Your task to perform on an android device: Show me recent news Image 0: 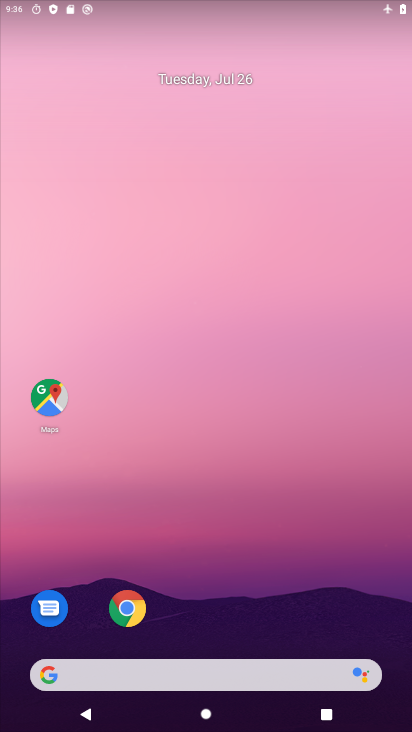
Step 0: drag from (205, 620) to (211, 90)
Your task to perform on an android device: Show me recent news Image 1: 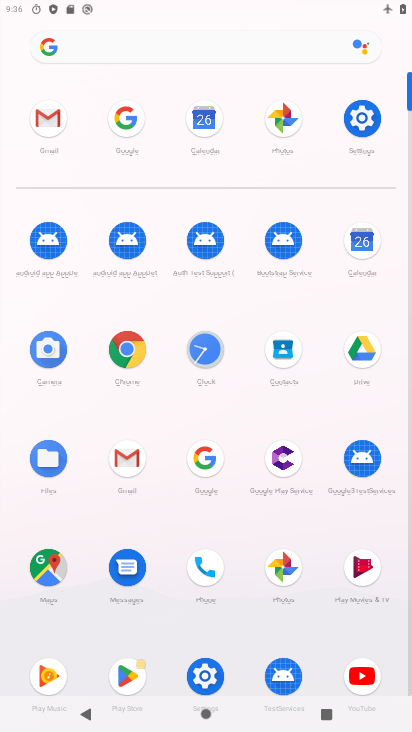
Step 1: click (205, 450)
Your task to perform on an android device: Show me recent news Image 2: 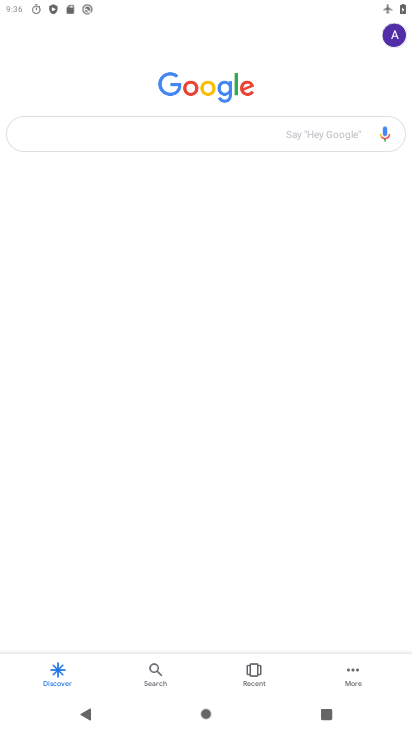
Step 2: click (180, 135)
Your task to perform on an android device: Show me recent news Image 3: 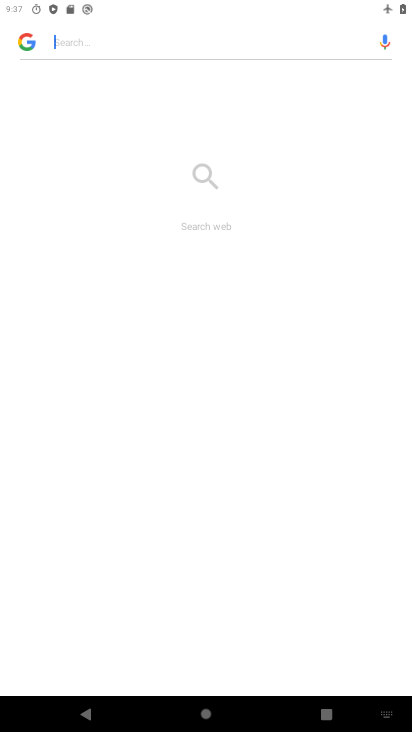
Step 3: click (153, 46)
Your task to perform on an android device: Show me recent news Image 4: 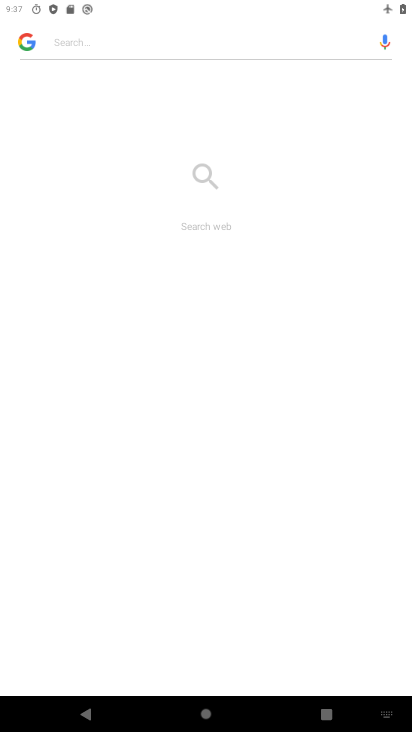
Step 4: type "news"
Your task to perform on an android device: Show me recent news Image 5: 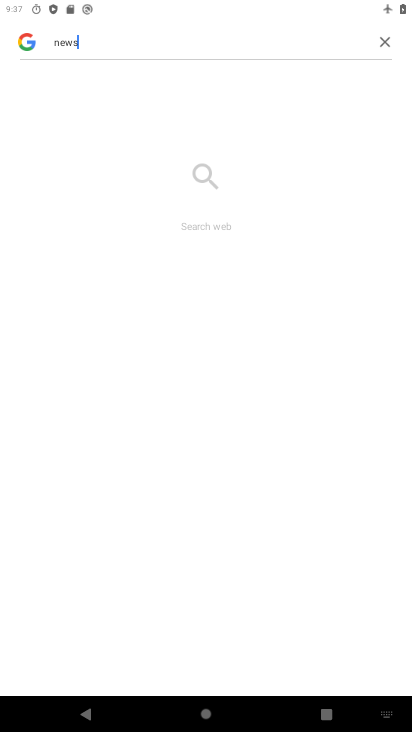
Step 5: type ""
Your task to perform on an android device: Show me recent news Image 6: 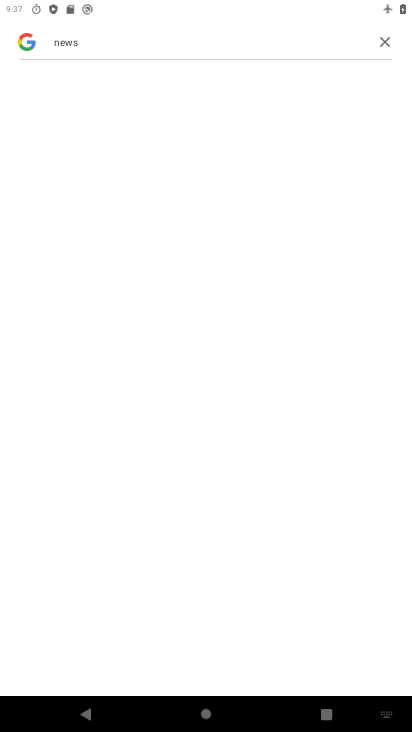
Step 6: task complete